Your task to perform on an android device: add a contact in the contacts app Image 0: 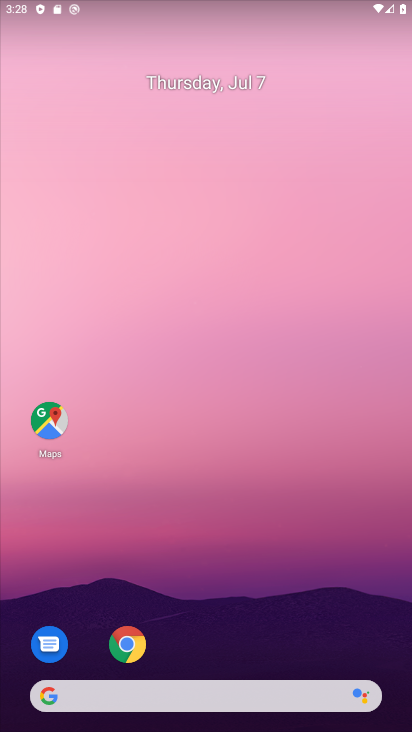
Step 0: drag from (233, 595) to (220, 100)
Your task to perform on an android device: add a contact in the contacts app Image 1: 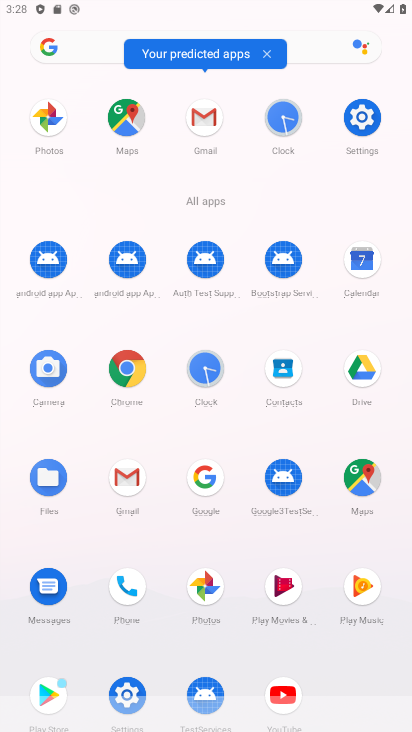
Step 1: click (286, 368)
Your task to perform on an android device: add a contact in the contacts app Image 2: 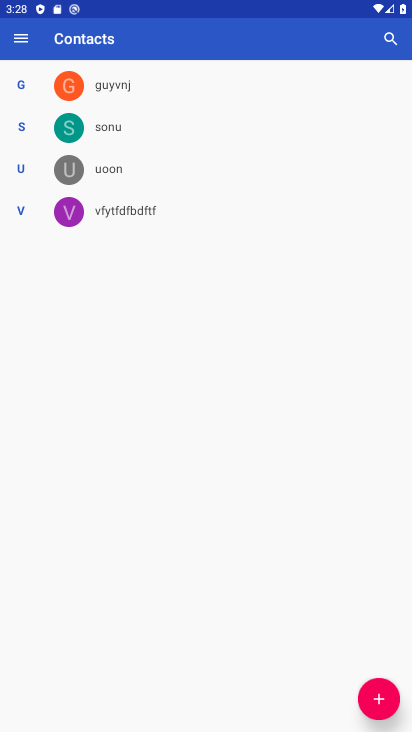
Step 2: click (368, 697)
Your task to perform on an android device: add a contact in the contacts app Image 3: 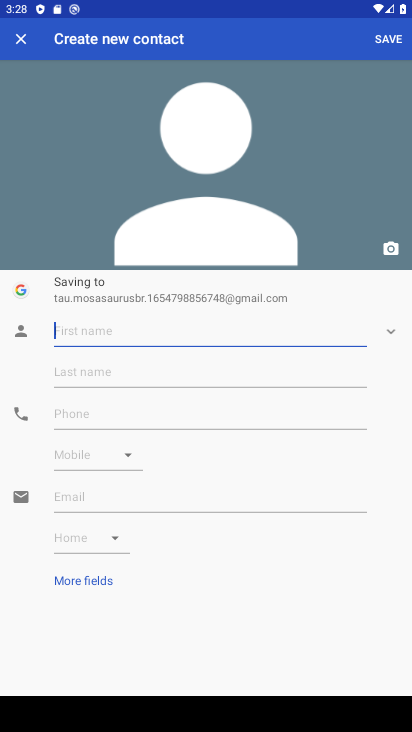
Step 3: click (114, 331)
Your task to perform on an android device: add a contact in the contacts app Image 4: 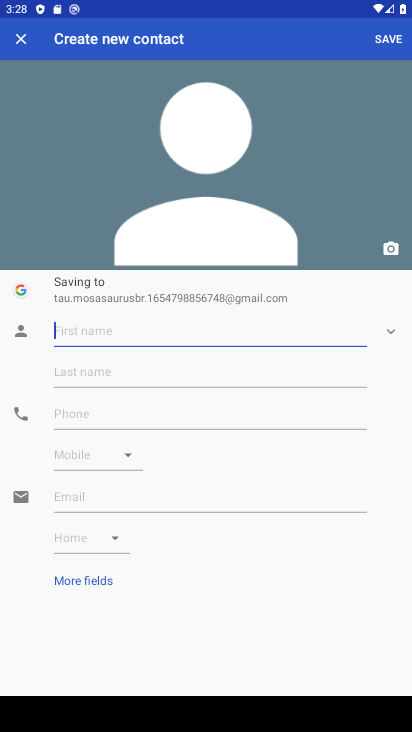
Step 4: type "priyanshu"
Your task to perform on an android device: add a contact in the contacts app Image 5: 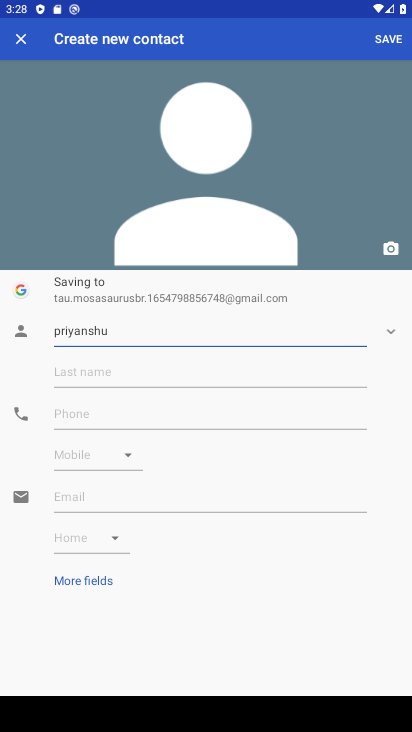
Step 5: click (219, 412)
Your task to perform on an android device: add a contact in the contacts app Image 6: 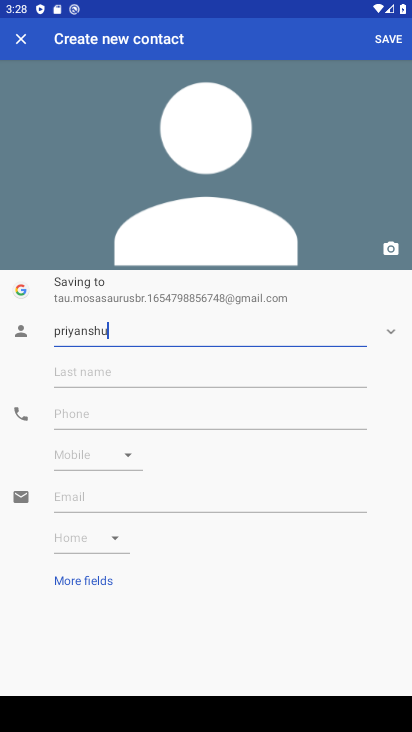
Step 6: click (219, 412)
Your task to perform on an android device: add a contact in the contacts app Image 7: 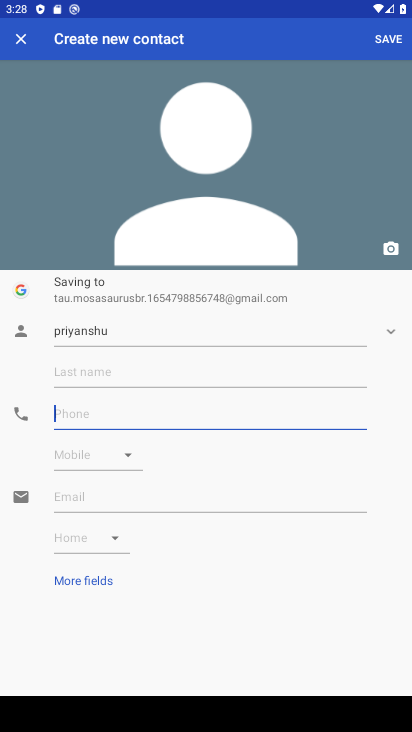
Step 7: type "9811=-[//.'"
Your task to perform on an android device: add a contact in the contacts app Image 8: 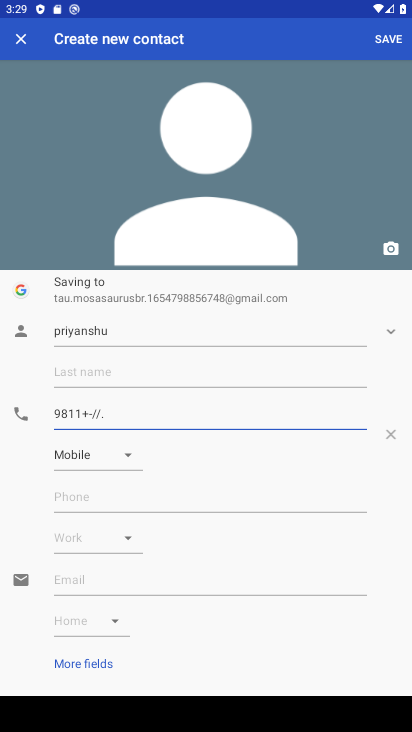
Step 8: click (376, 40)
Your task to perform on an android device: add a contact in the contacts app Image 9: 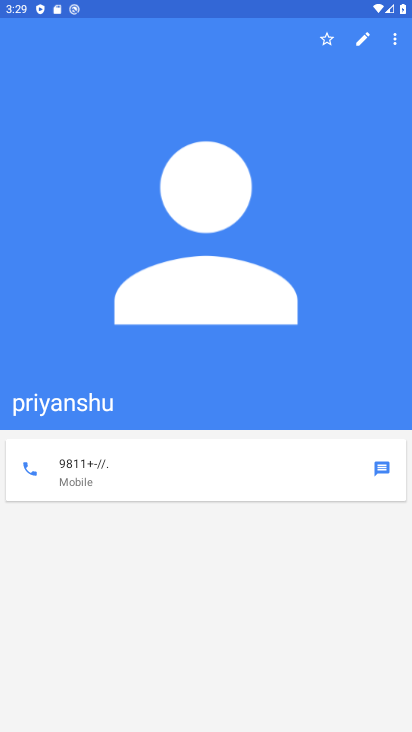
Step 9: task complete